Your task to perform on an android device: allow notifications from all sites in the chrome app Image 0: 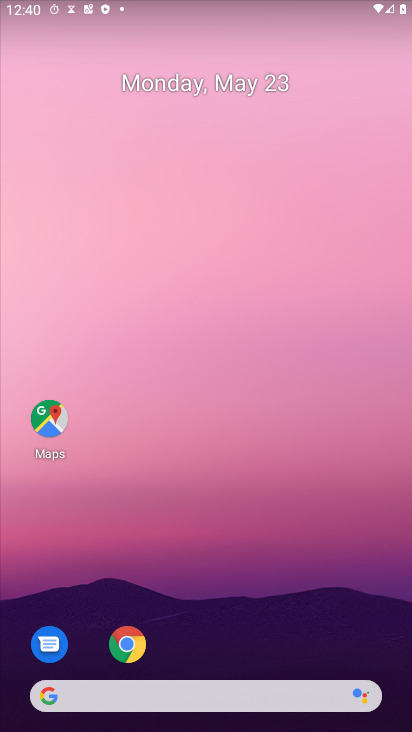
Step 0: click (134, 648)
Your task to perform on an android device: allow notifications from all sites in the chrome app Image 1: 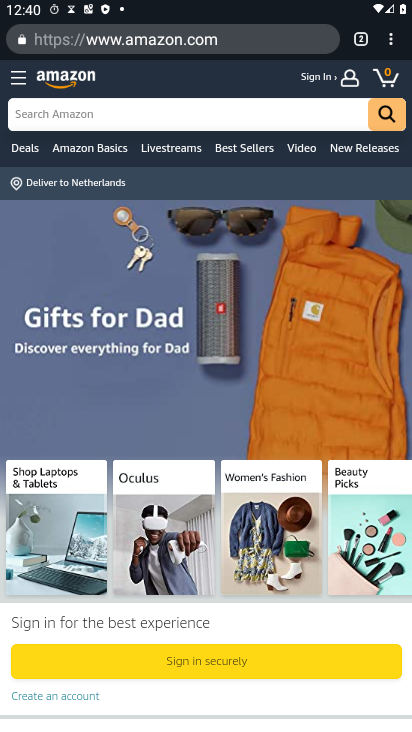
Step 1: click (393, 35)
Your task to perform on an android device: allow notifications from all sites in the chrome app Image 2: 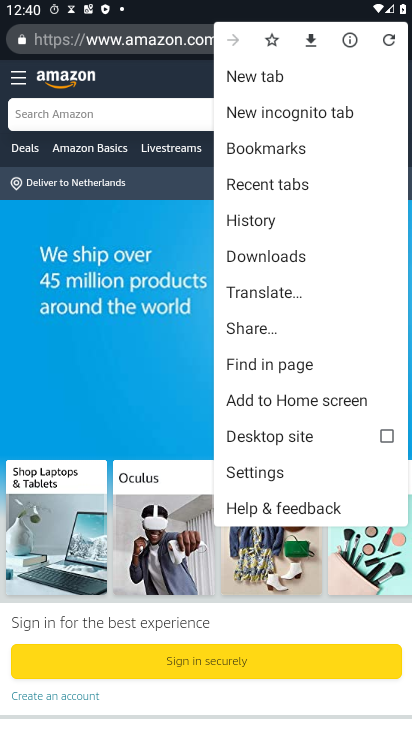
Step 2: click (271, 467)
Your task to perform on an android device: allow notifications from all sites in the chrome app Image 3: 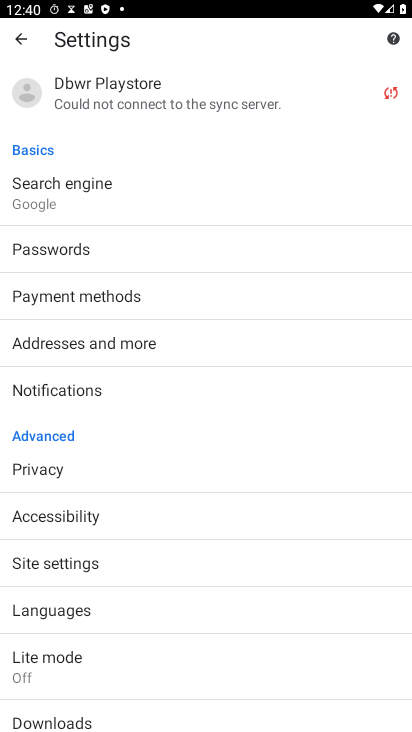
Step 3: click (74, 392)
Your task to perform on an android device: allow notifications from all sites in the chrome app Image 4: 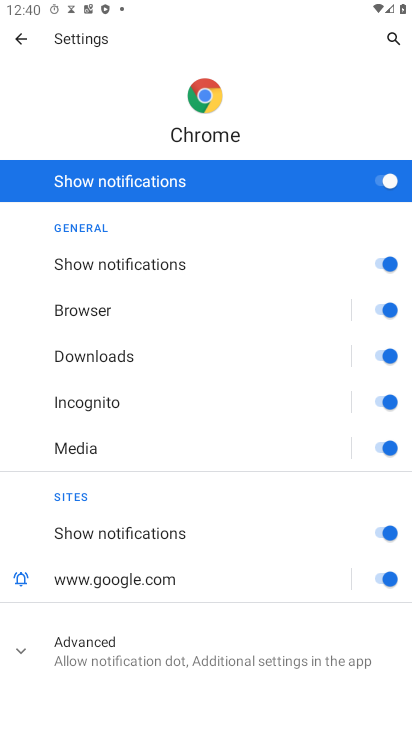
Step 4: task complete